Your task to perform on an android device: Search for Mexican restaurants on Maps Image 0: 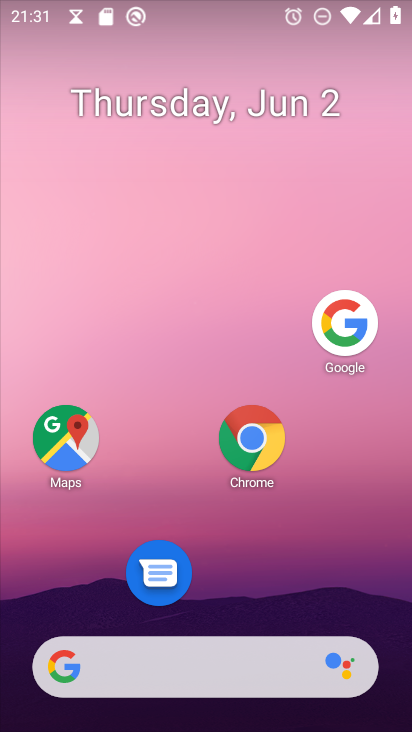
Step 0: click (64, 453)
Your task to perform on an android device: Search for Mexican restaurants on Maps Image 1: 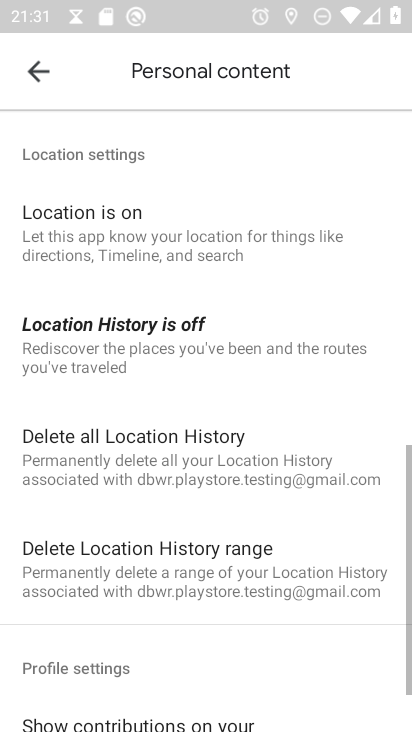
Step 1: click (37, 66)
Your task to perform on an android device: Search for Mexican restaurants on Maps Image 2: 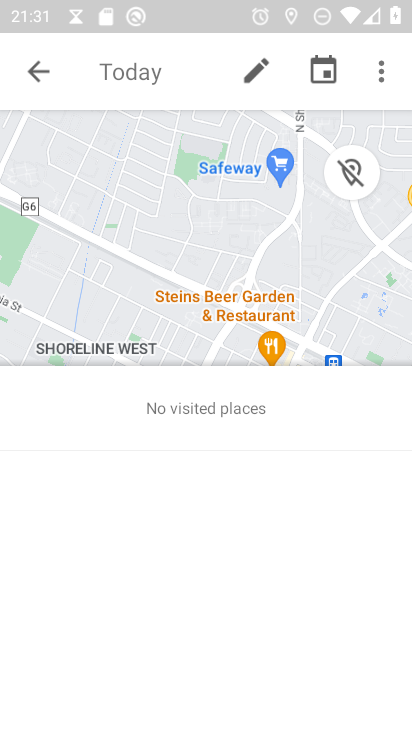
Step 2: click (37, 67)
Your task to perform on an android device: Search for Mexican restaurants on Maps Image 3: 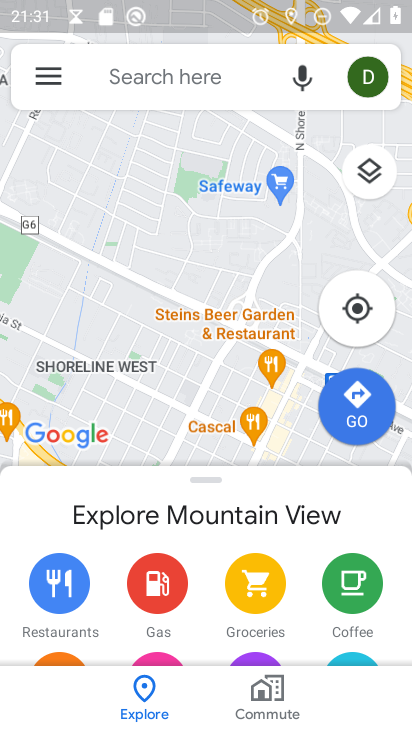
Step 3: click (199, 81)
Your task to perform on an android device: Search for Mexican restaurants on Maps Image 4: 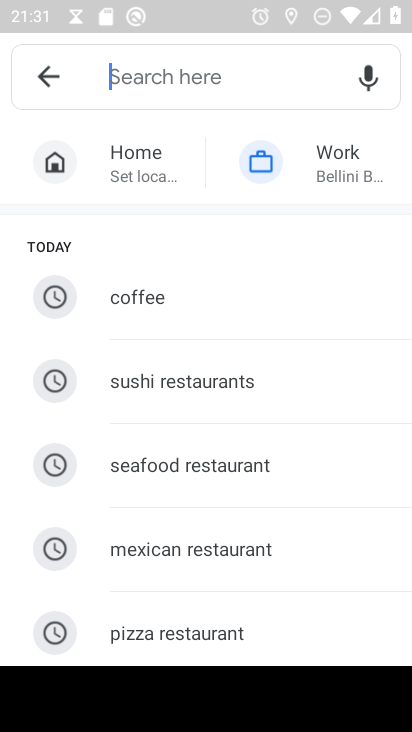
Step 4: click (224, 554)
Your task to perform on an android device: Search for Mexican restaurants on Maps Image 5: 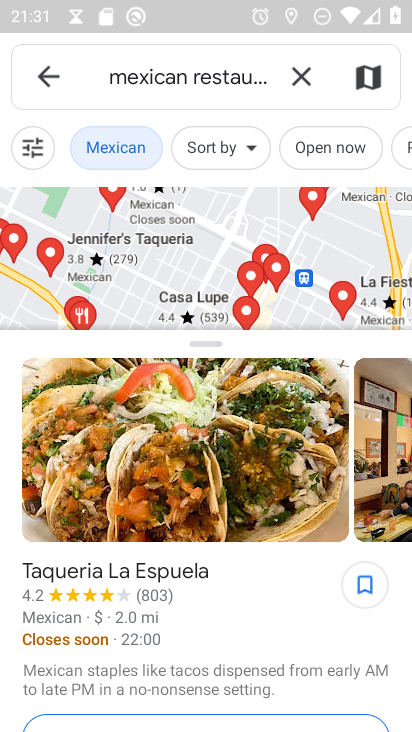
Step 5: task complete